Your task to perform on an android device: make emails show in primary in the gmail app Image 0: 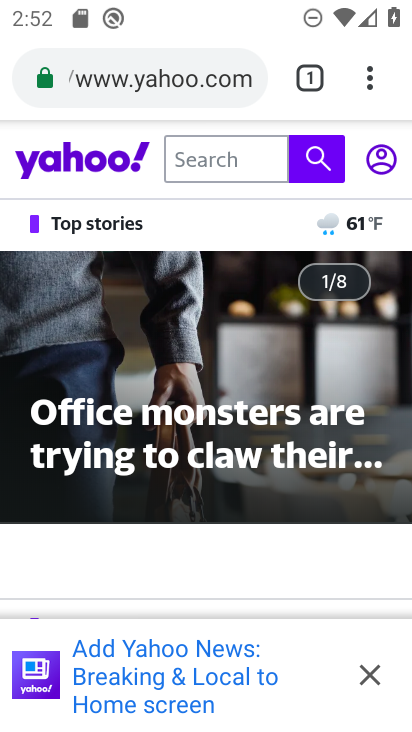
Step 0: press home button
Your task to perform on an android device: make emails show in primary in the gmail app Image 1: 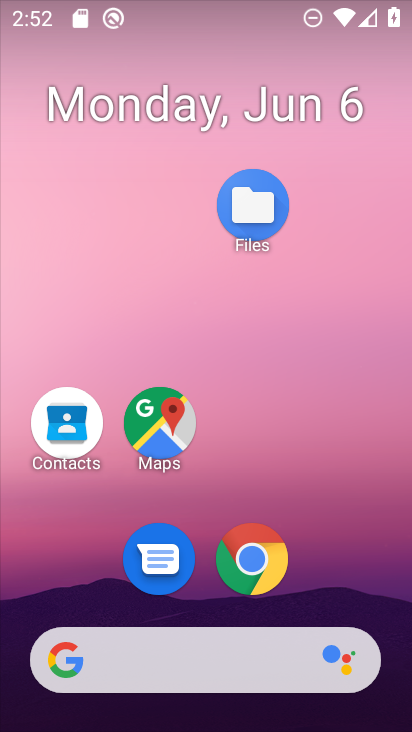
Step 1: drag from (258, 652) to (288, 231)
Your task to perform on an android device: make emails show in primary in the gmail app Image 2: 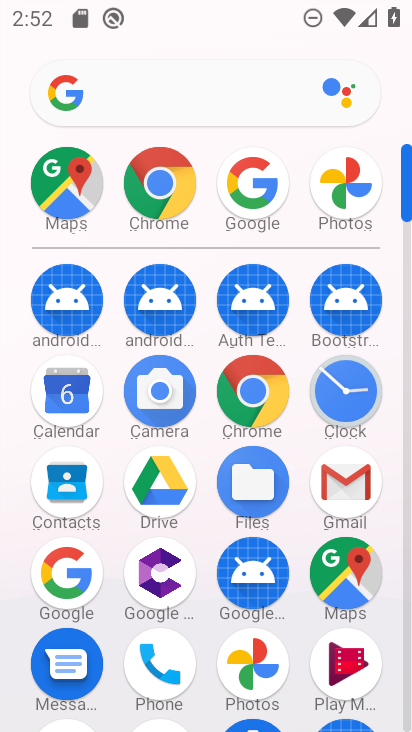
Step 2: click (362, 496)
Your task to perform on an android device: make emails show in primary in the gmail app Image 3: 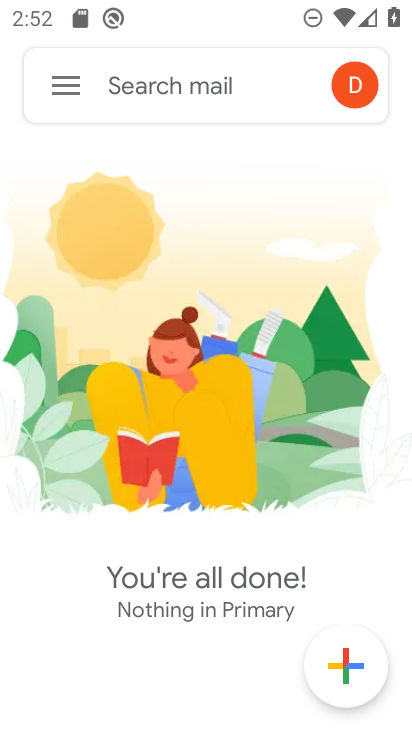
Step 3: click (77, 94)
Your task to perform on an android device: make emails show in primary in the gmail app Image 4: 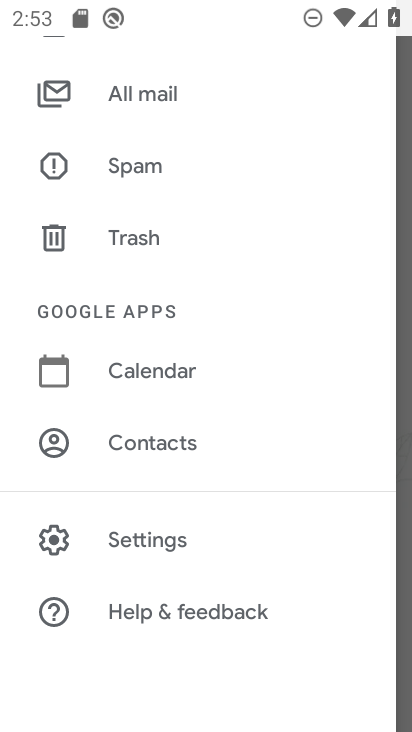
Step 4: drag from (240, 408) to (241, 609)
Your task to perform on an android device: make emails show in primary in the gmail app Image 5: 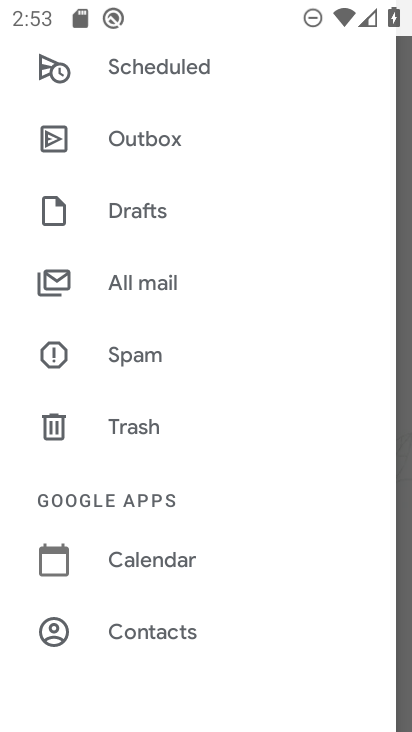
Step 5: drag from (257, 466) to (266, 606)
Your task to perform on an android device: make emails show in primary in the gmail app Image 6: 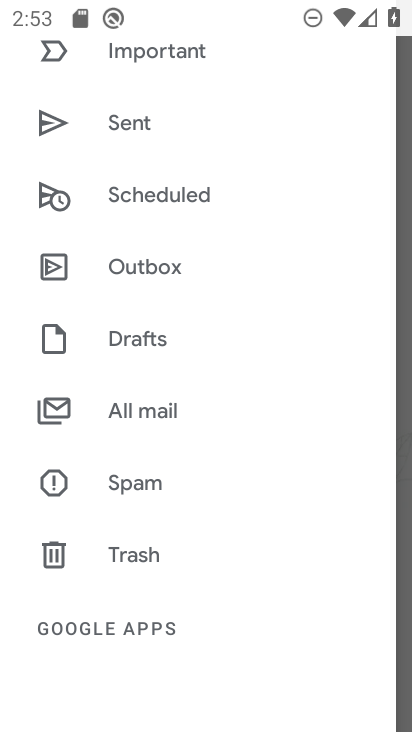
Step 6: click (147, 395)
Your task to perform on an android device: make emails show in primary in the gmail app Image 7: 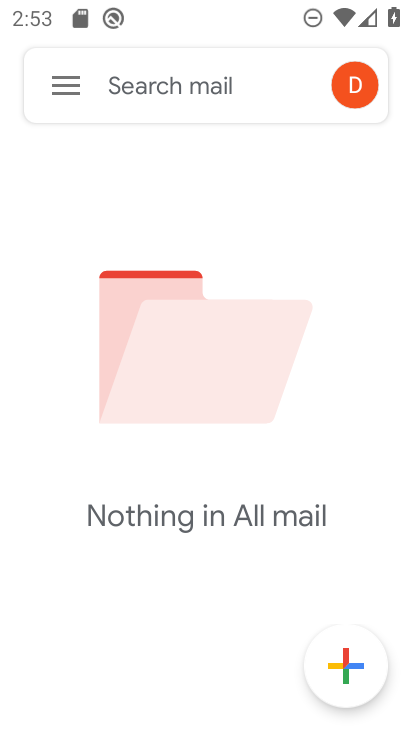
Step 7: task complete